Your task to perform on an android device: Open Yahoo.com Image 0: 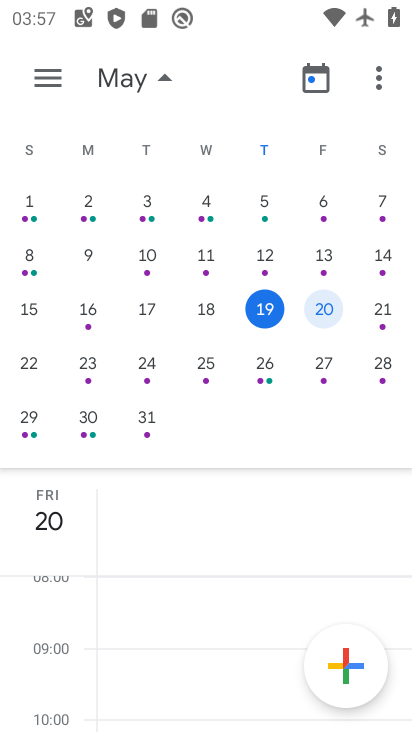
Step 0: press home button
Your task to perform on an android device: Open Yahoo.com Image 1: 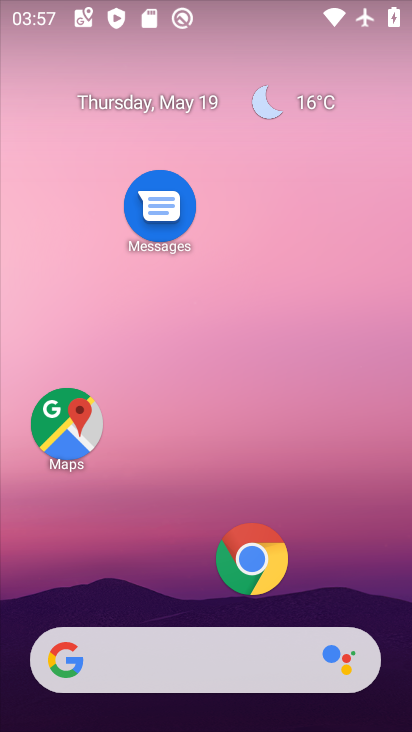
Step 1: click (246, 569)
Your task to perform on an android device: Open Yahoo.com Image 2: 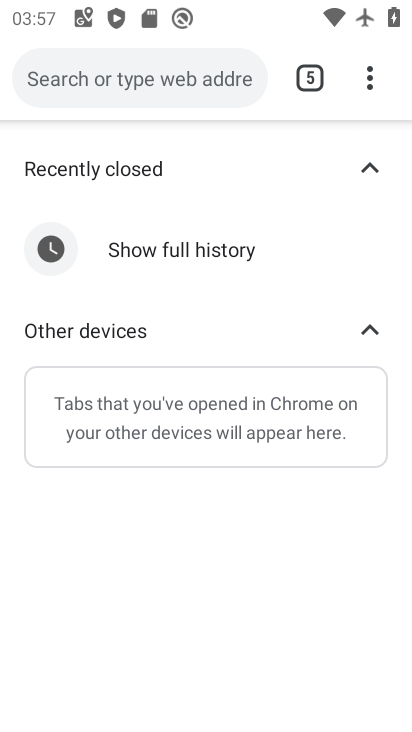
Step 2: click (311, 82)
Your task to perform on an android device: Open Yahoo.com Image 3: 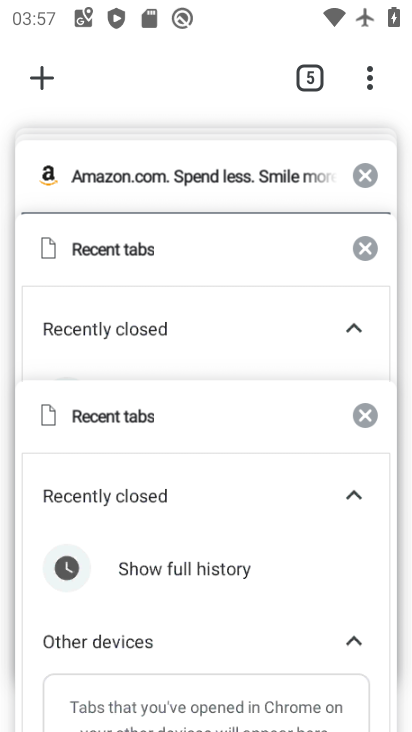
Step 3: click (39, 80)
Your task to perform on an android device: Open Yahoo.com Image 4: 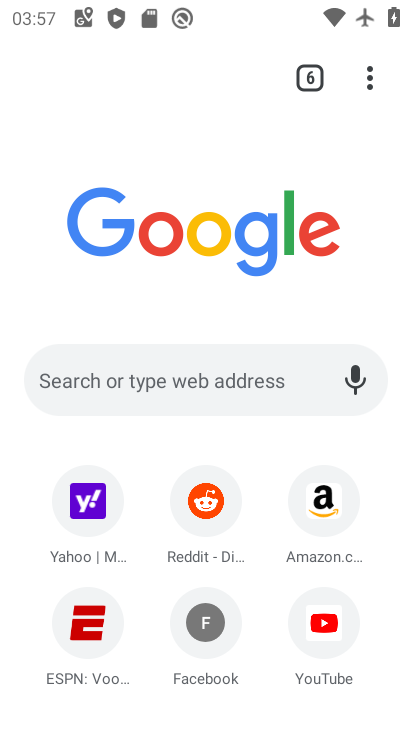
Step 4: click (98, 526)
Your task to perform on an android device: Open Yahoo.com Image 5: 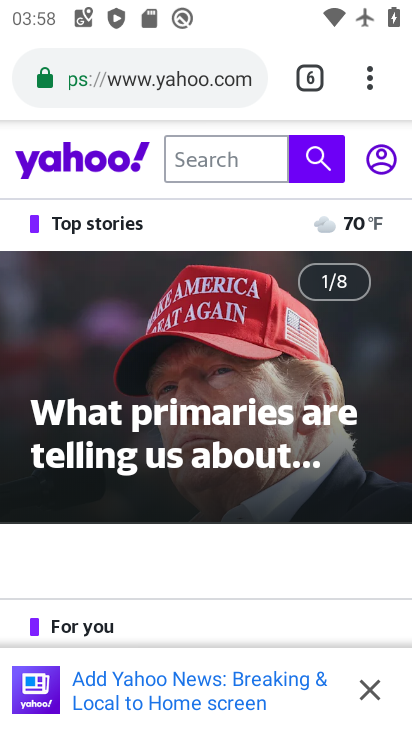
Step 5: task complete